Your task to perform on an android device: Go to battery settings Image 0: 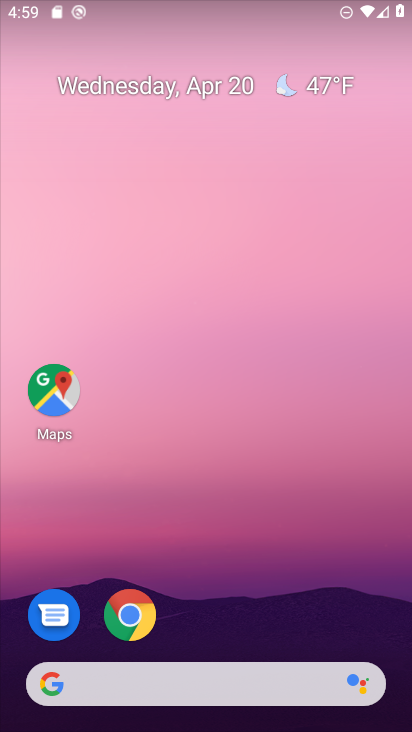
Step 0: drag from (264, 609) to (234, 0)
Your task to perform on an android device: Go to battery settings Image 1: 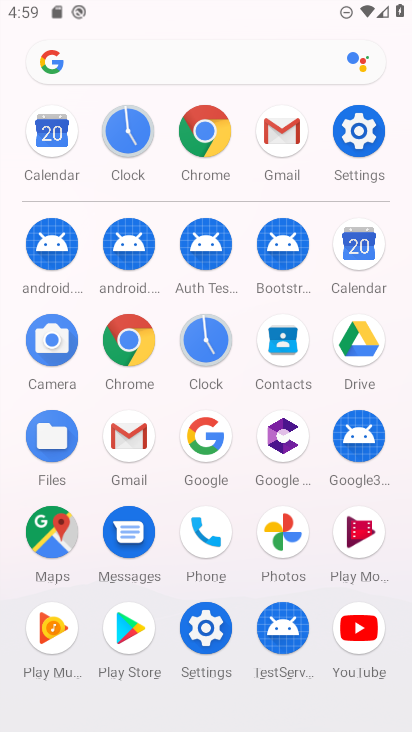
Step 1: click (360, 119)
Your task to perform on an android device: Go to battery settings Image 2: 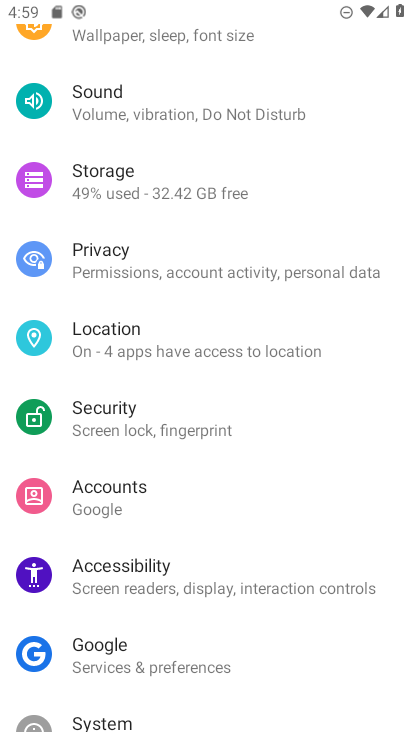
Step 2: click (226, 629)
Your task to perform on an android device: Go to battery settings Image 3: 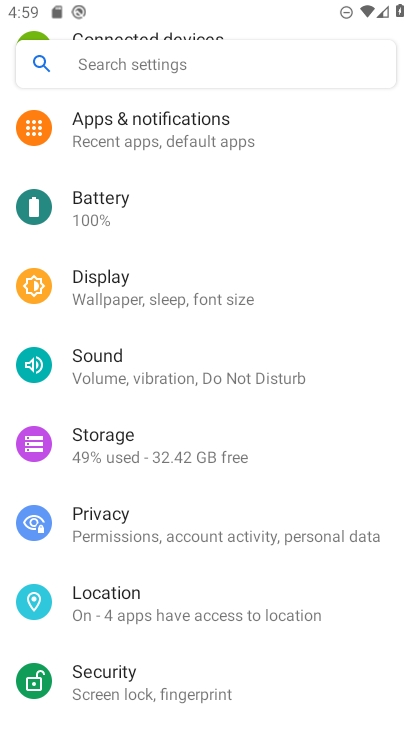
Step 3: click (122, 210)
Your task to perform on an android device: Go to battery settings Image 4: 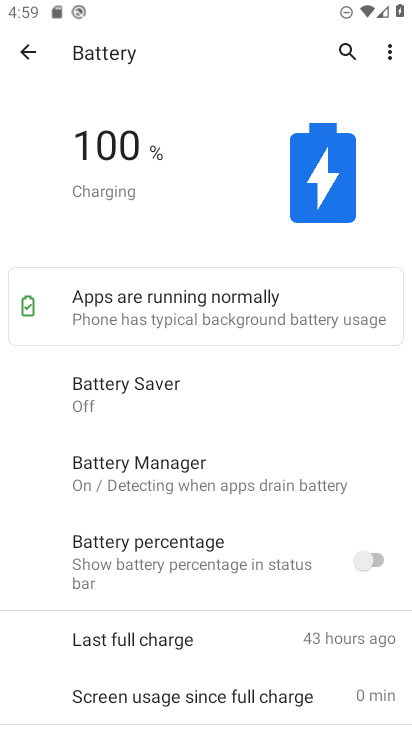
Step 4: task complete